Your task to perform on an android device: Open Yahoo.com Image 0: 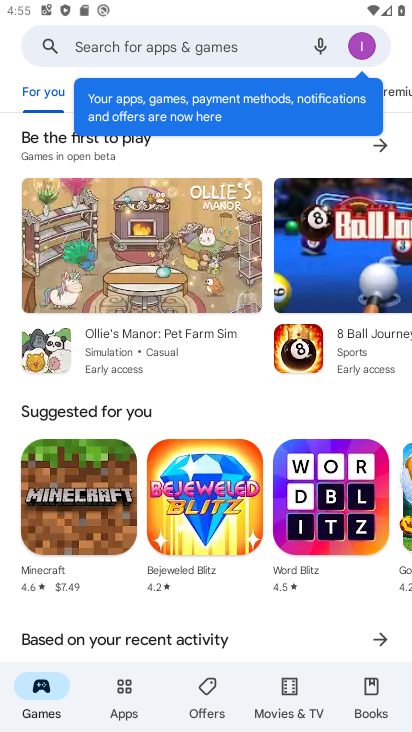
Step 0: press home button
Your task to perform on an android device: Open Yahoo.com Image 1: 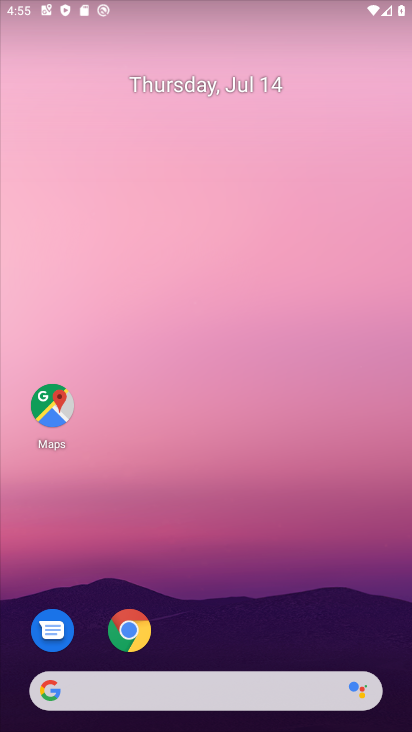
Step 1: drag from (304, 617) to (333, 19)
Your task to perform on an android device: Open Yahoo.com Image 2: 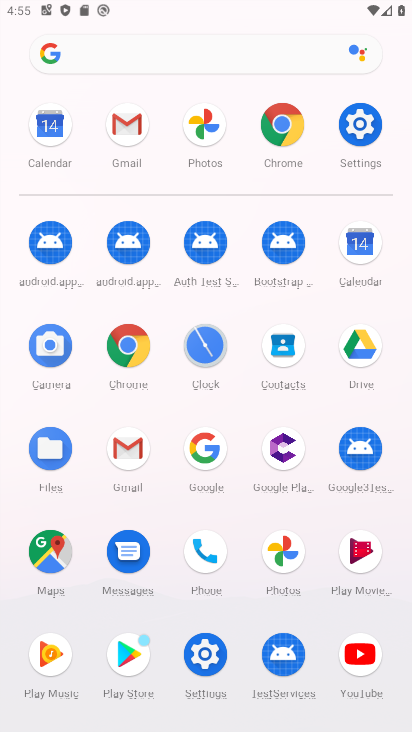
Step 2: click (132, 338)
Your task to perform on an android device: Open Yahoo.com Image 3: 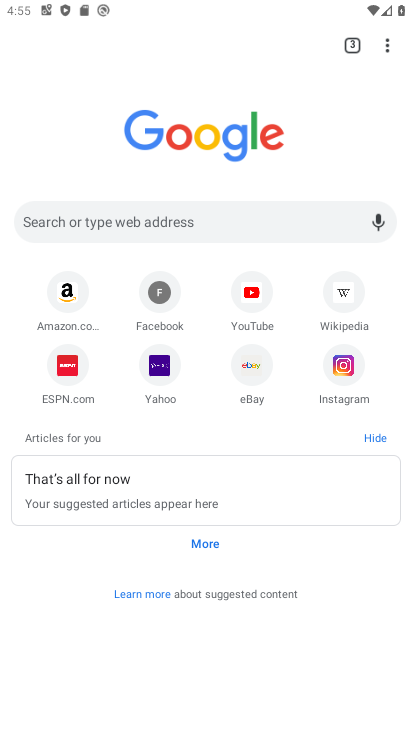
Step 3: click (148, 361)
Your task to perform on an android device: Open Yahoo.com Image 4: 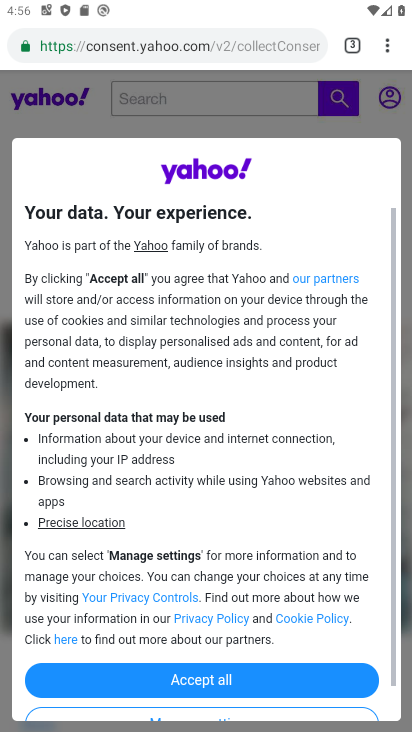
Step 4: press home button
Your task to perform on an android device: Open Yahoo.com Image 5: 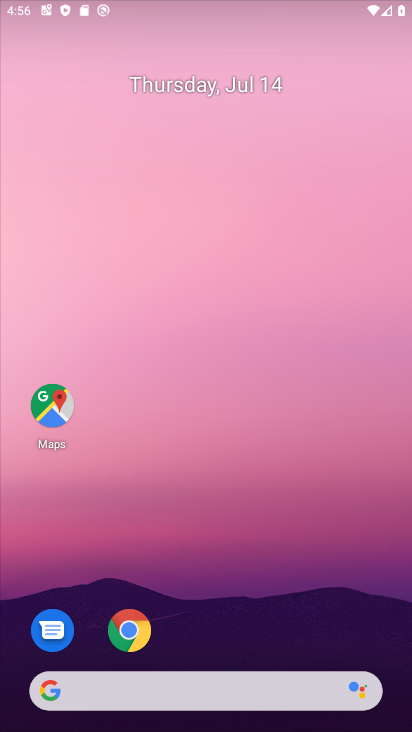
Step 5: drag from (220, 654) to (303, 6)
Your task to perform on an android device: Open Yahoo.com Image 6: 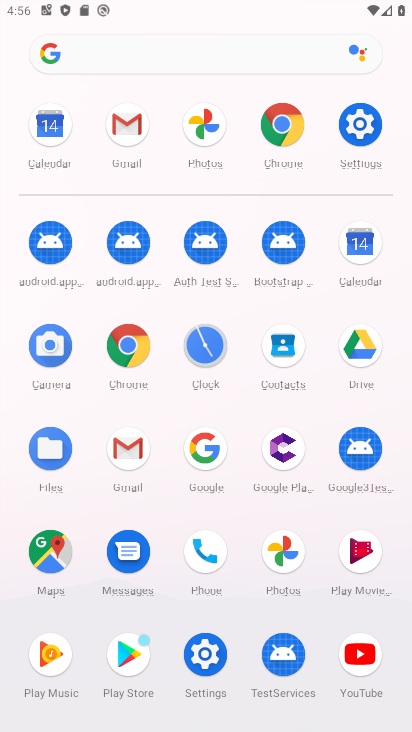
Step 6: click (128, 335)
Your task to perform on an android device: Open Yahoo.com Image 7: 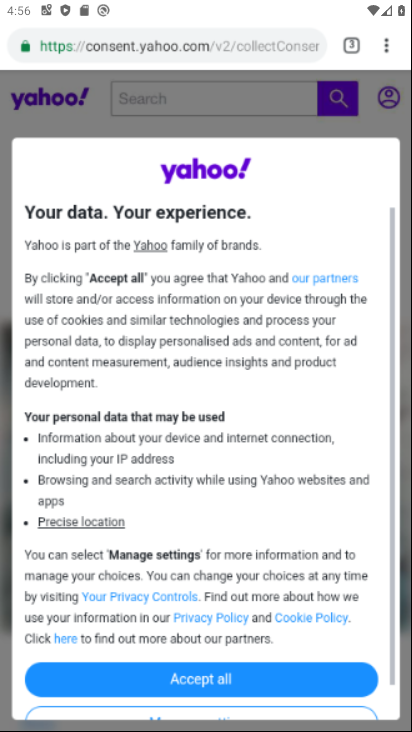
Step 7: task complete